Your task to perform on an android device: Open Maps and search for coffee Image 0: 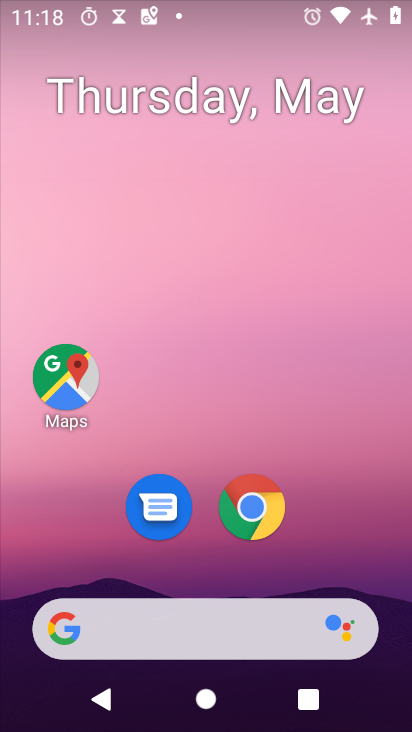
Step 0: drag from (340, 540) to (251, 45)
Your task to perform on an android device: Open Maps and search for coffee Image 1: 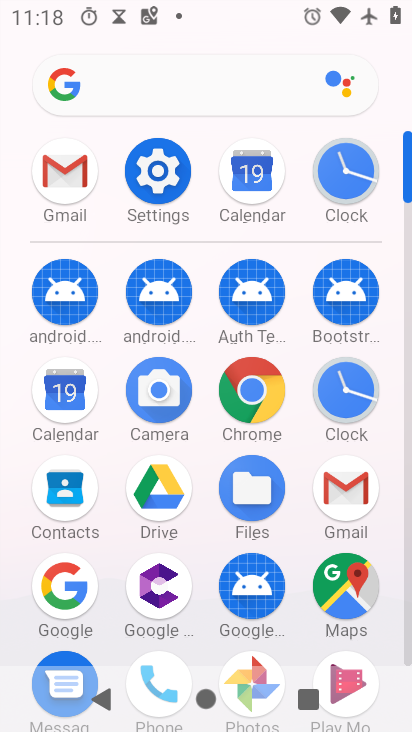
Step 1: drag from (16, 557) to (14, 251)
Your task to perform on an android device: Open Maps and search for coffee Image 2: 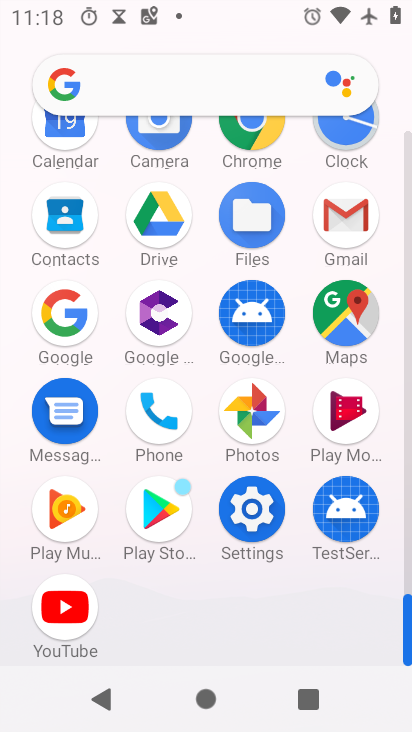
Step 2: drag from (15, 526) to (14, 212)
Your task to perform on an android device: Open Maps and search for coffee Image 3: 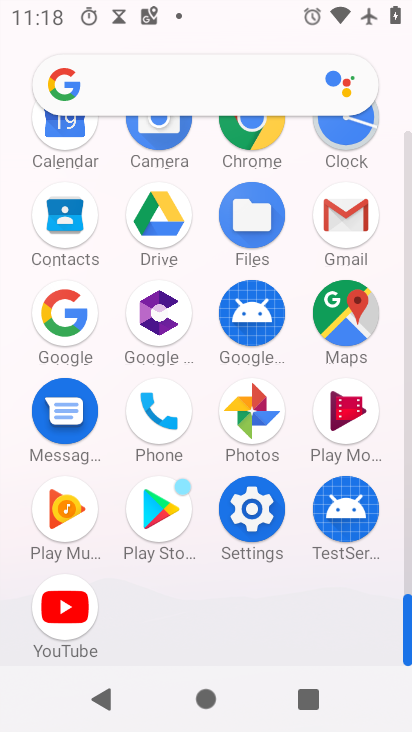
Step 3: click (341, 320)
Your task to perform on an android device: Open Maps and search for coffee Image 4: 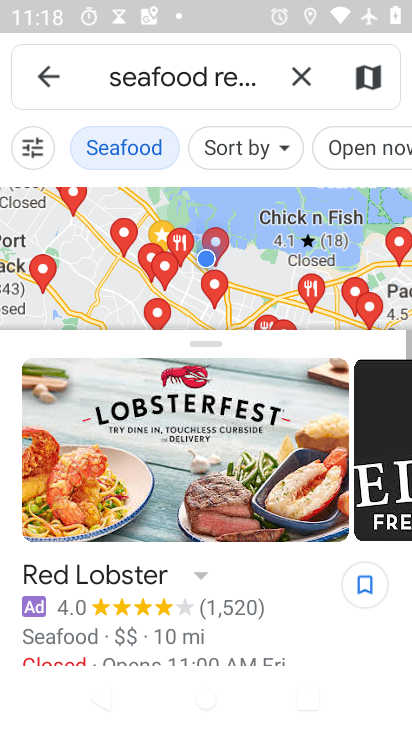
Step 4: click (304, 74)
Your task to perform on an android device: Open Maps and search for coffee Image 5: 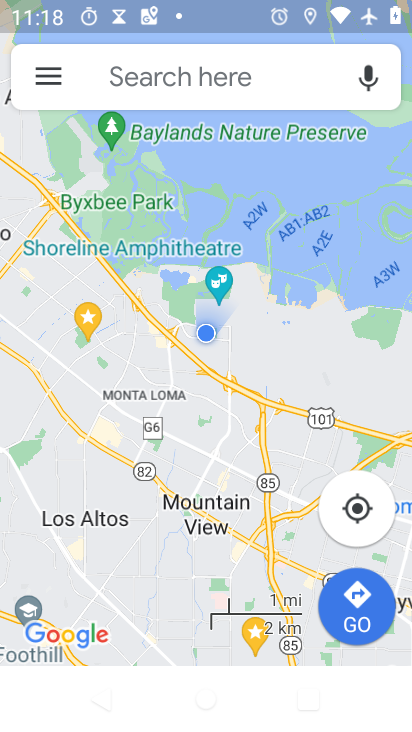
Step 5: click (80, 80)
Your task to perform on an android device: Open Maps and search for coffee Image 6: 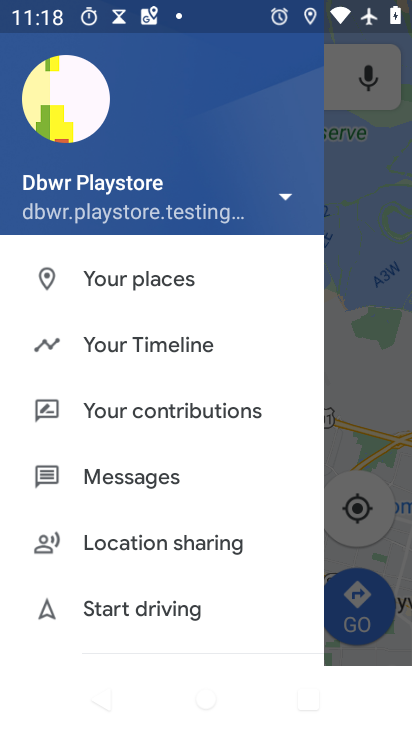
Step 6: click (327, 84)
Your task to perform on an android device: Open Maps and search for coffee Image 7: 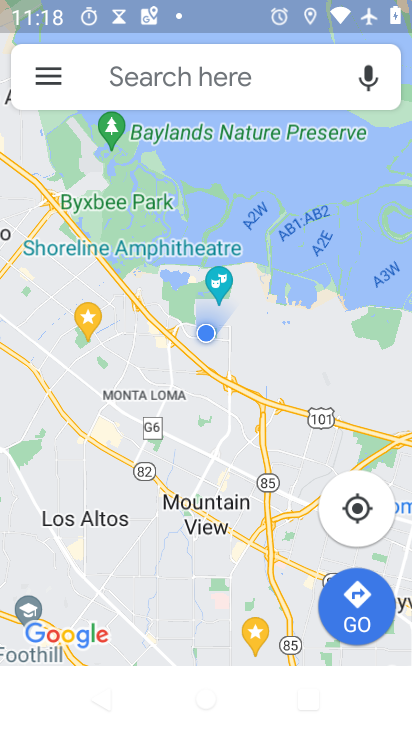
Step 7: click (277, 77)
Your task to perform on an android device: Open Maps and search for coffee Image 8: 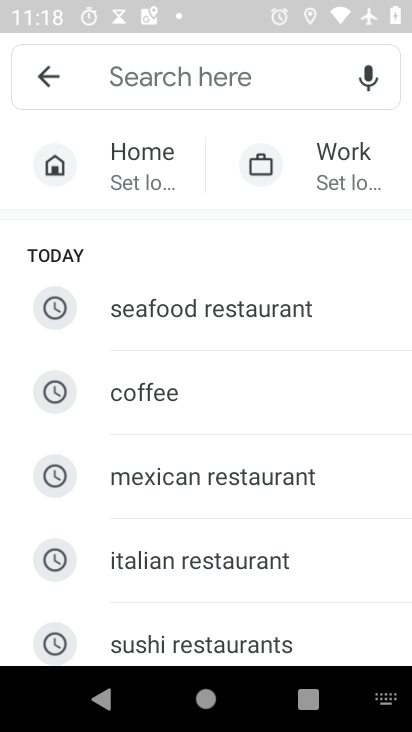
Step 8: click (187, 395)
Your task to perform on an android device: Open Maps and search for coffee Image 9: 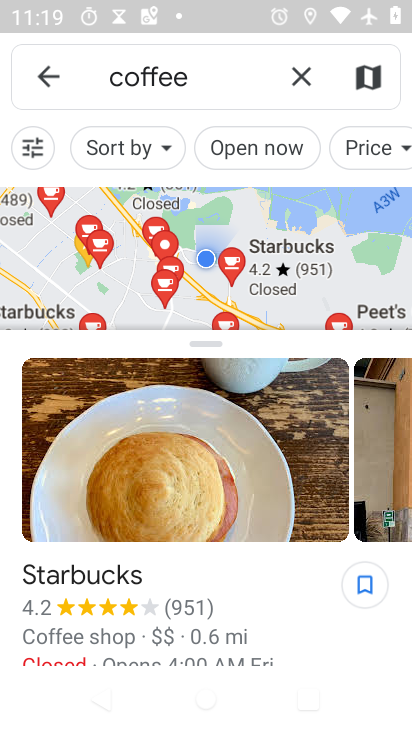
Step 9: task complete